Your task to perform on an android device: Go to Reddit.com Image 0: 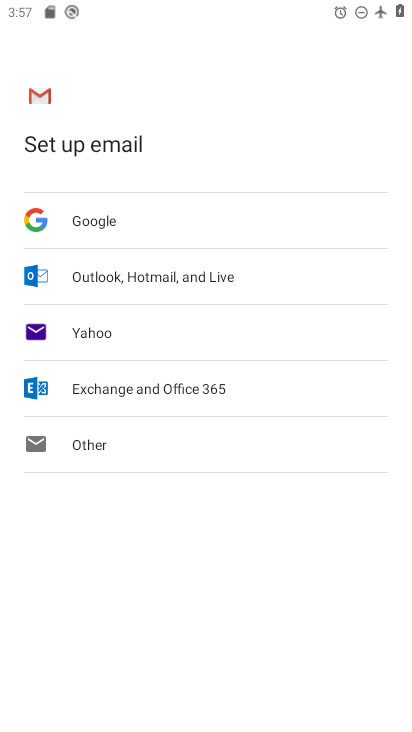
Step 0: press home button
Your task to perform on an android device: Go to Reddit.com Image 1: 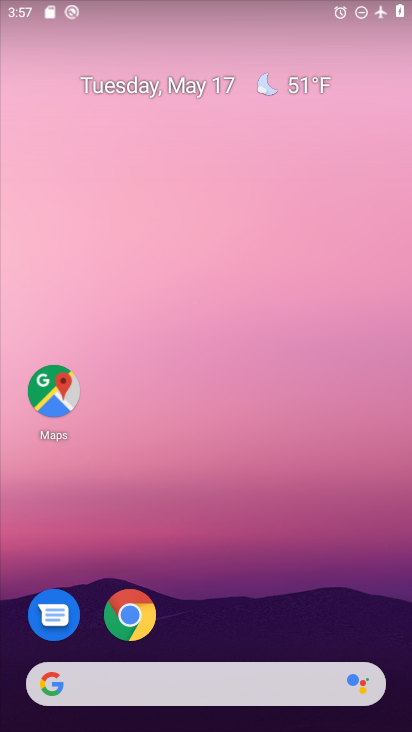
Step 1: click (127, 605)
Your task to perform on an android device: Go to Reddit.com Image 2: 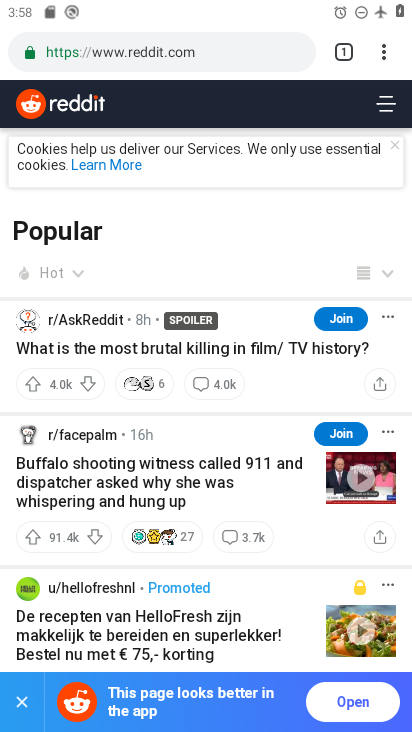
Step 2: task complete